Your task to perform on an android device: turn on location history Image 0: 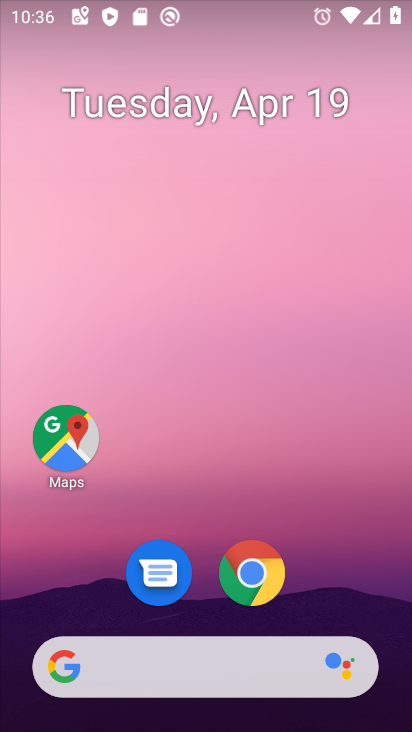
Step 0: drag from (360, 600) to (336, 68)
Your task to perform on an android device: turn on location history Image 1: 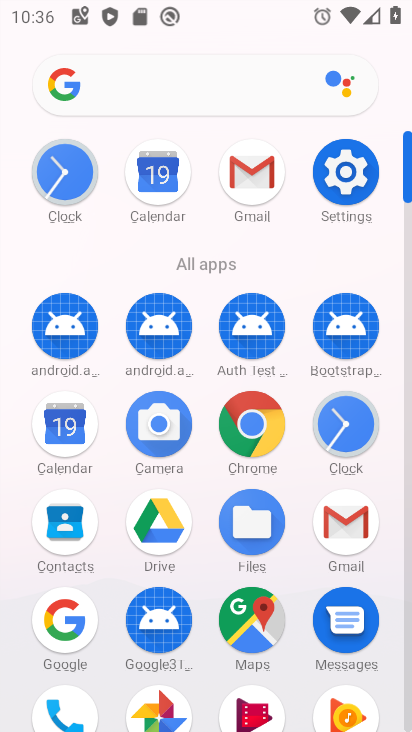
Step 1: click (360, 184)
Your task to perform on an android device: turn on location history Image 2: 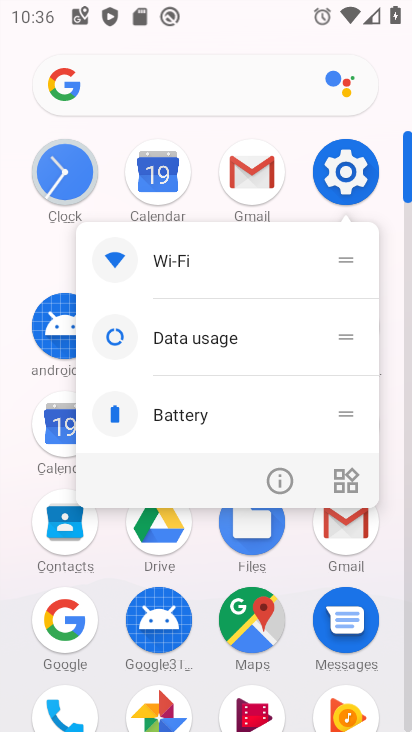
Step 2: click (349, 178)
Your task to perform on an android device: turn on location history Image 3: 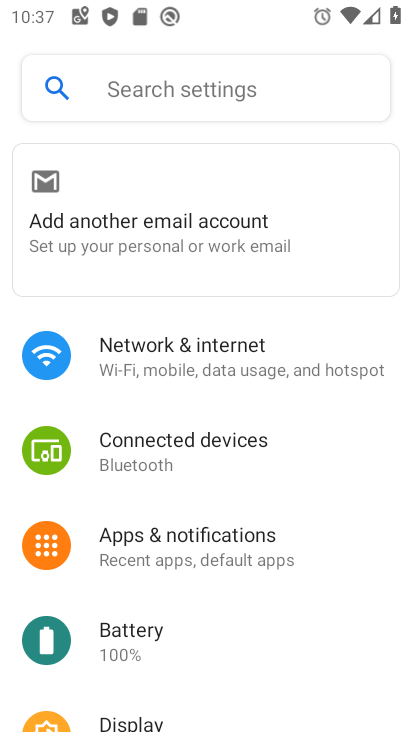
Step 3: drag from (216, 685) to (222, 286)
Your task to perform on an android device: turn on location history Image 4: 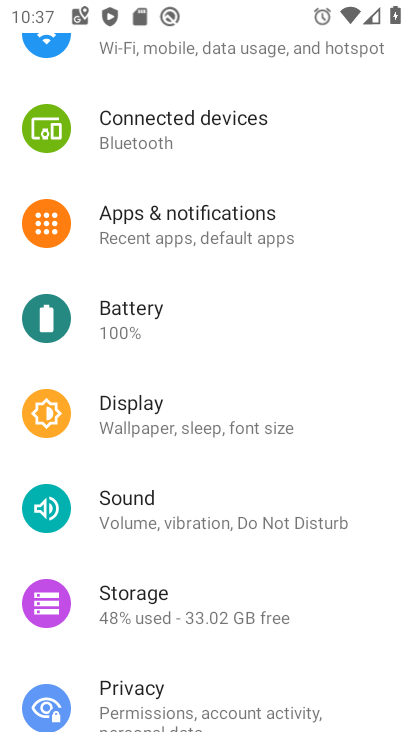
Step 4: drag from (181, 672) to (191, 335)
Your task to perform on an android device: turn on location history Image 5: 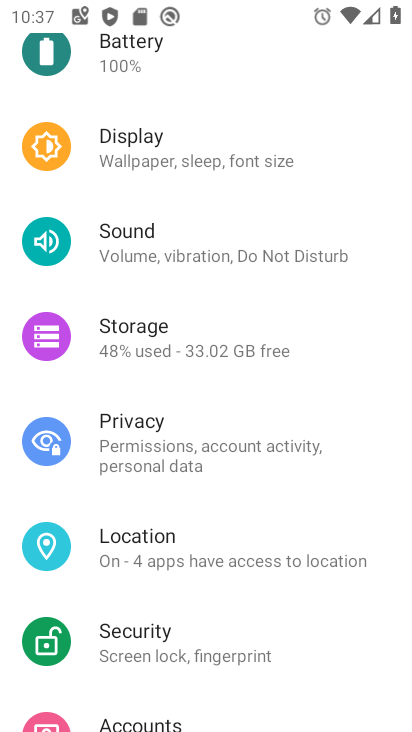
Step 5: click (233, 556)
Your task to perform on an android device: turn on location history Image 6: 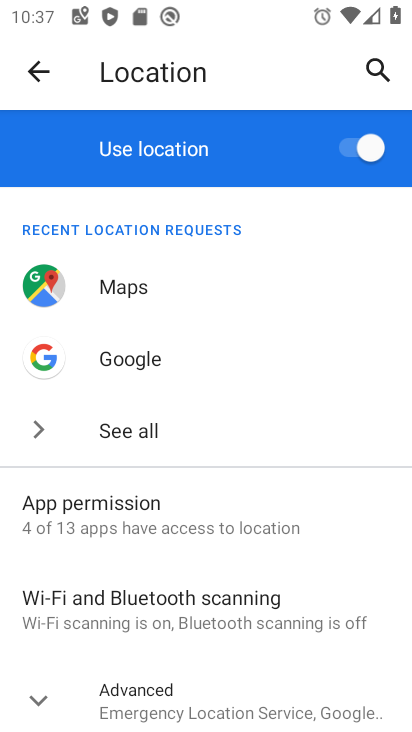
Step 6: drag from (190, 699) to (207, 335)
Your task to perform on an android device: turn on location history Image 7: 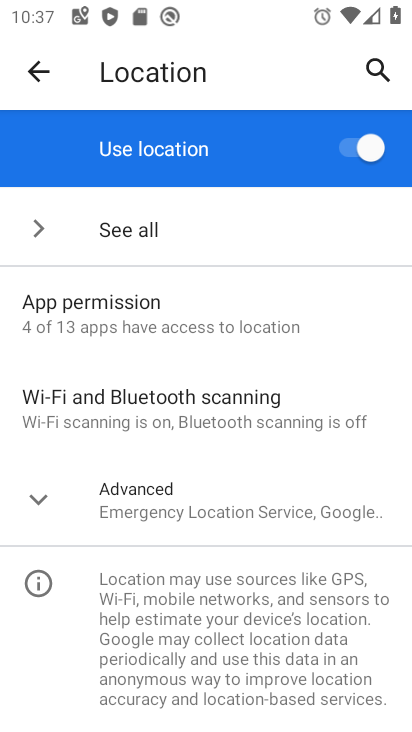
Step 7: click (194, 506)
Your task to perform on an android device: turn on location history Image 8: 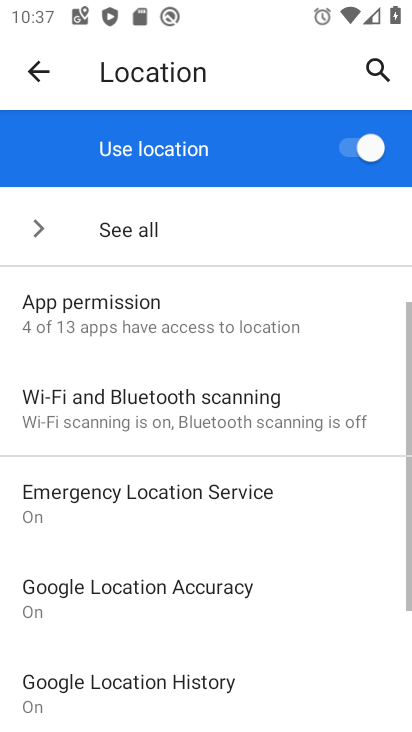
Step 8: task complete